Your task to perform on an android device: find snoozed emails in the gmail app Image 0: 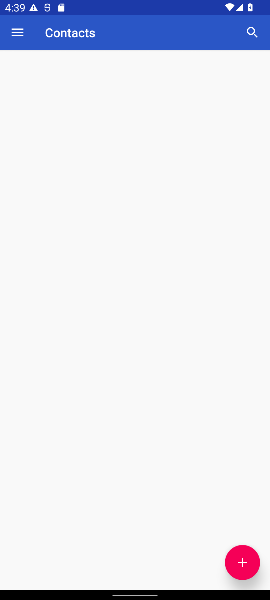
Step 0: press home button
Your task to perform on an android device: find snoozed emails in the gmail app Image 1: 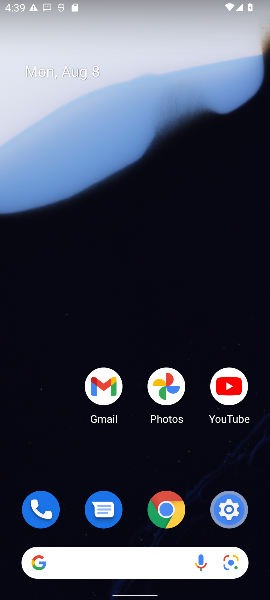
Step 1: click (108, 385)
Your task to perform on an android device: find snoozed emails in the gmail app Image 2: 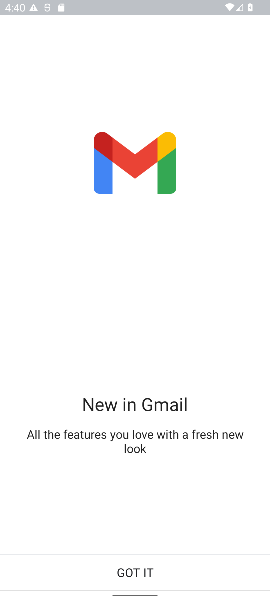
Step 2: click (135, 565)
Your task to perform on an android device: find snoozed emails in the gmail app Image 3: 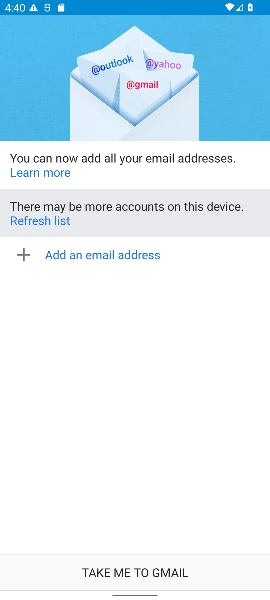
Step 3: click (139, 573)
Your task to perform on an android device: find snoozed emails in the gmail app Image 4: 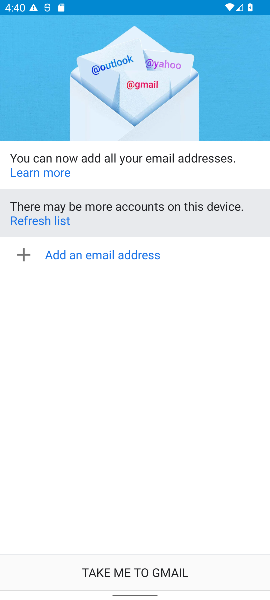
Step 4: click (125, 570)
Your task to perform on an android device: find snoozed emails in the gmail app Image 5: 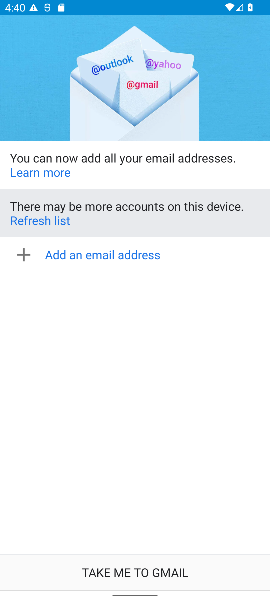
Step 5: click (136, 569)
Your task to perform on an android device: find snoozed emails in the gmail app Image 6: 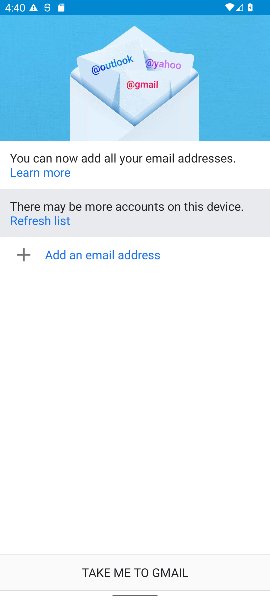
Step 6: click (136, 569)
Your task to perform on an android device: find snoozed emails in the gmail app Image 7: 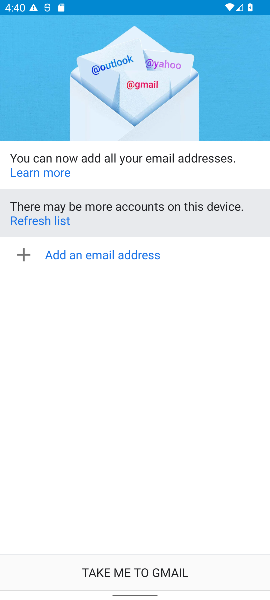
Step 7: click (128, 571)
Your task to perform on an android device: find snoozed emails in the gmail app Image 8: 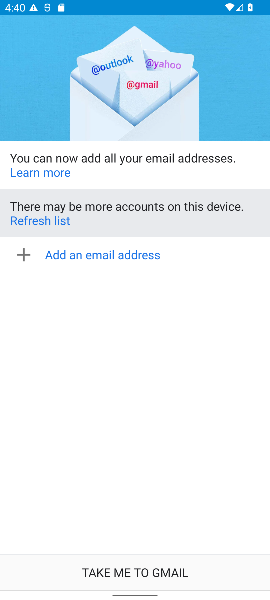
Step 8: click (145, 565)
Your task to perform on an android device: find snoozed emails in the gmail app Image 9: 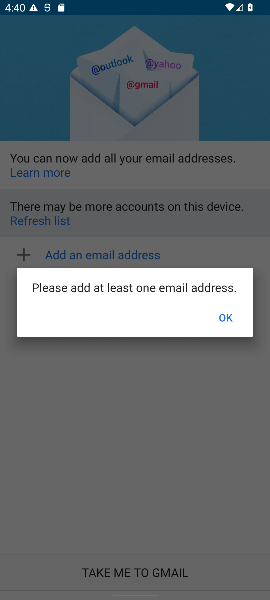
Step 9: click (126, 579)
Your task to perform on an android device: find snoozed emails in the gmail app Image 10: 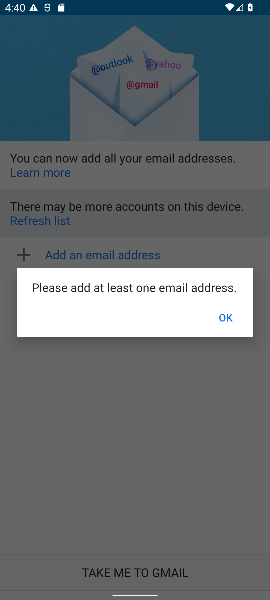
Step 10: click (231, 315)
Your task to perform on an android device: find snoozed emails in the gmail app Image 11: 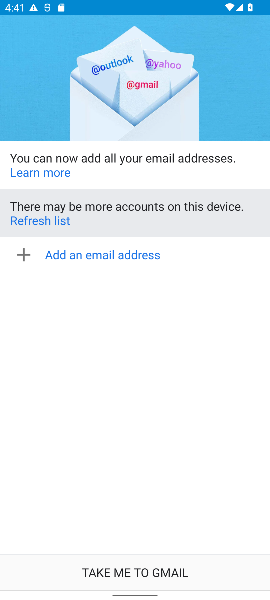
Step 11: click (120, 572)
Your task to perform on an android device: find snoozed emails in the gmail app Image 12: 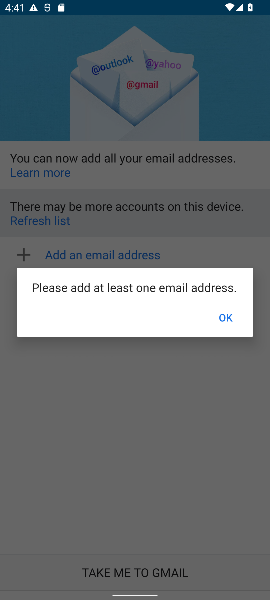
Step 12: click (228, 320)
Your task to perform on an android device: find snoozed emails in the gmail app Image 13: 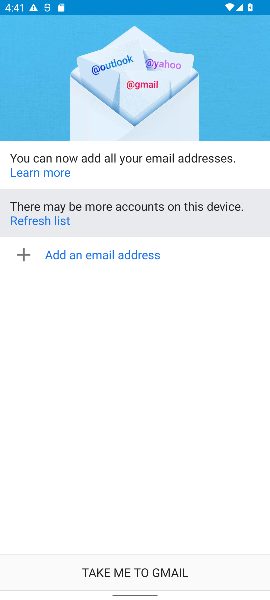
Step 13: task complete